Your task to perform on an android device: Open display settings Image 0: 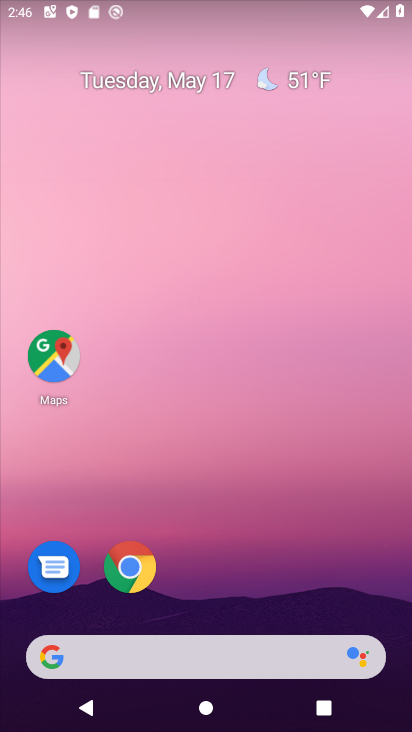
Step 0: drag from (189, 662) to (185, 199)
Your task to perform on an android device: Open display settings Image 1: 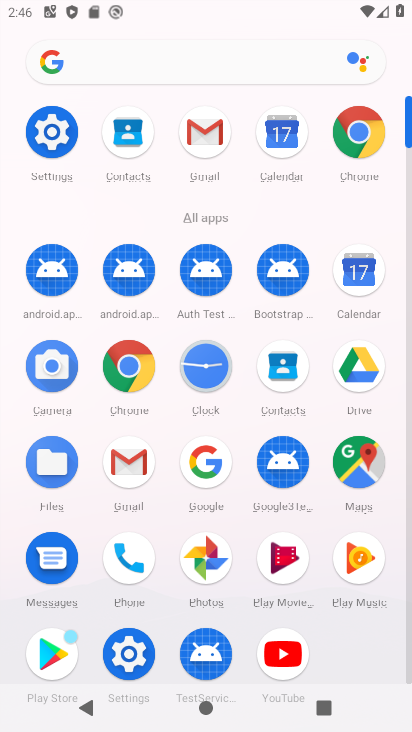
Step 1: click (48, 132)
Your task to perform on an android device: Open display settings Image 2: 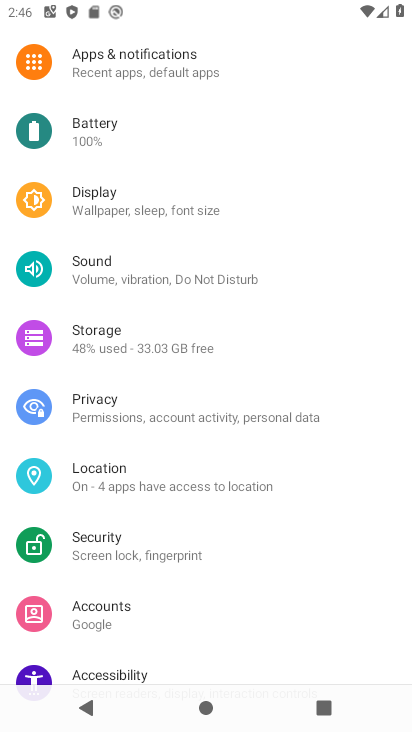
Step 2: click (98, 204)
Your task to perform on an android device: Open display settings Image 3: 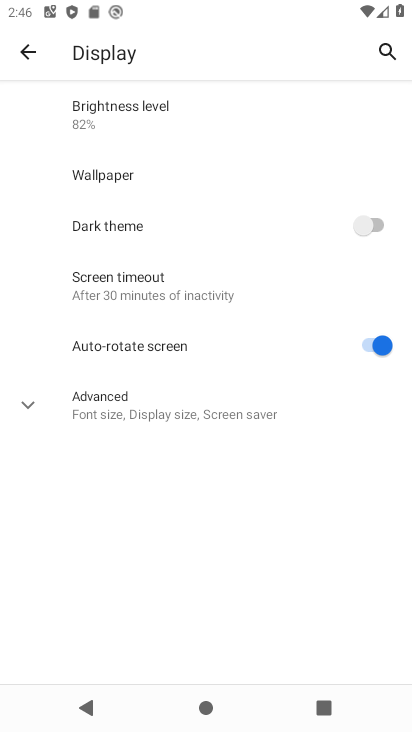
Step 3: task complete